Your task to perform on an android device: delete location history Image 0: 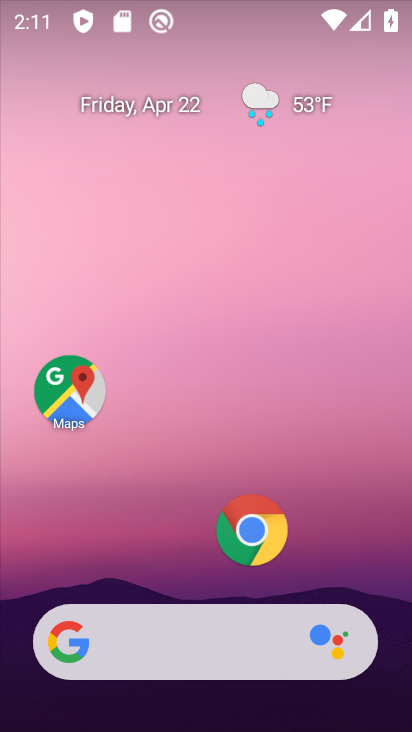
Step 0: drag from (212, 644) to (167, 154)
Your task to perform on an android device: delete location history Image 1: 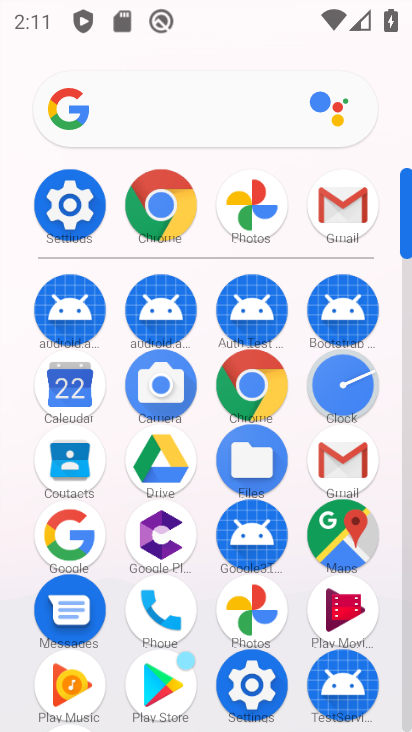
Step 1: click (334, 522)
Your task to perform on an android device: delete location history Image 2: 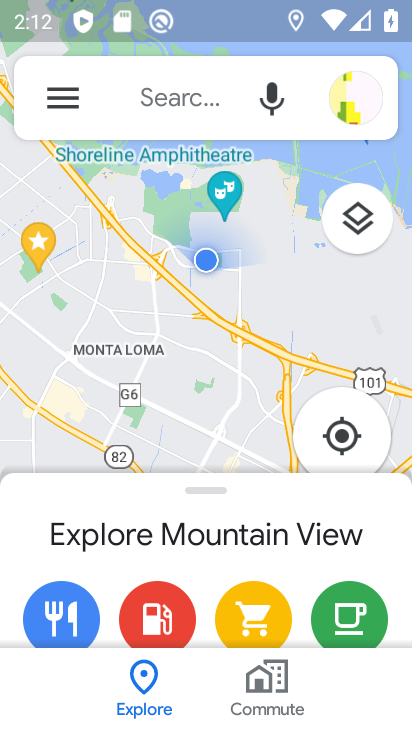
Step 2: click (75, 95)
Your task to perform on an android device: delete location history Image 3: 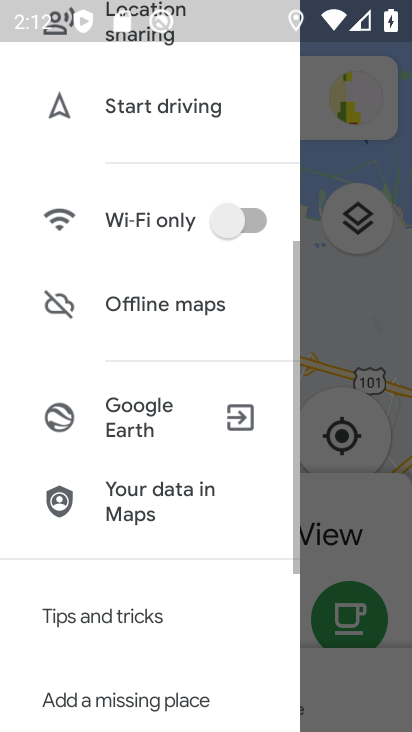
Step 3: drag from (153, 141) to (153, 647)
Your task to perform on an android device: delete location history Image 4: 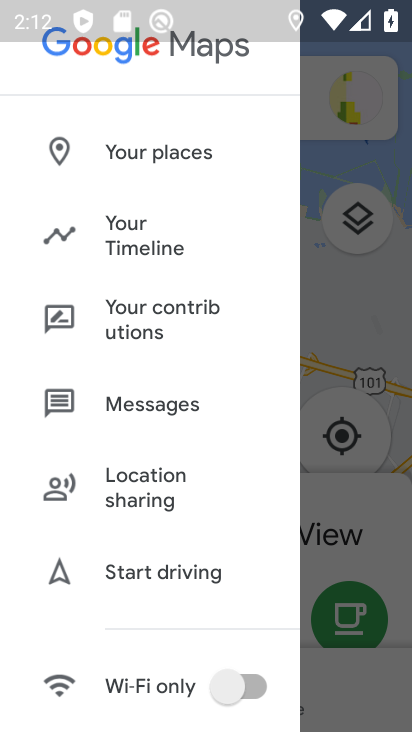
Step 4: click (161, 242)
Your task to perform on an android device: delete location history Image 5: 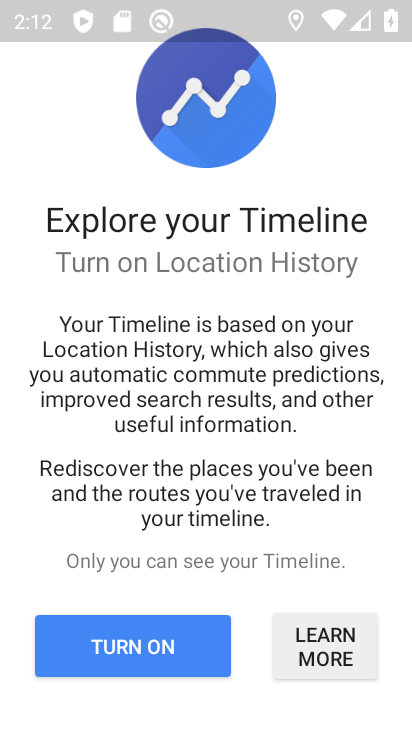
Step 5: click (195, 639)
Your task to perform on an android device: delete location history Image 6: 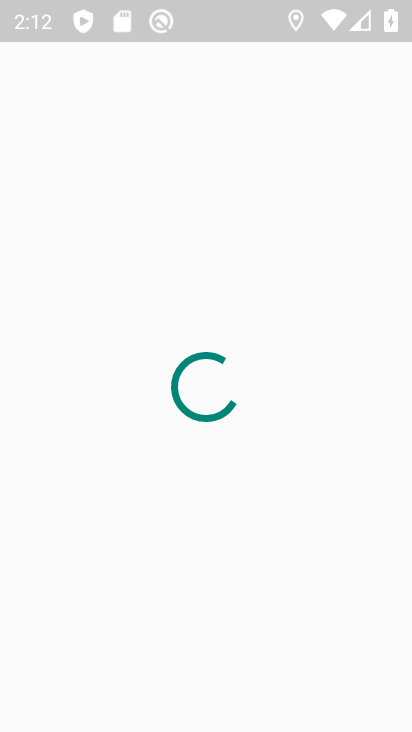
Step 6: click (374, 82)
Your task to perform on an android device: delete location history Image 7: 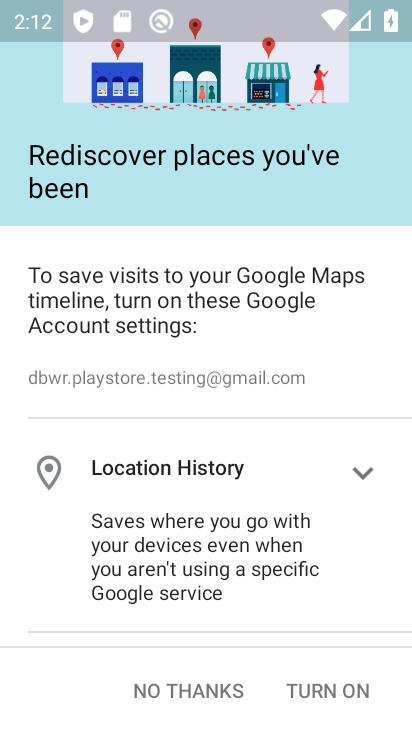
Step 7: click (342, 696)
Your task to perform on an android device: delete location history Image 8: 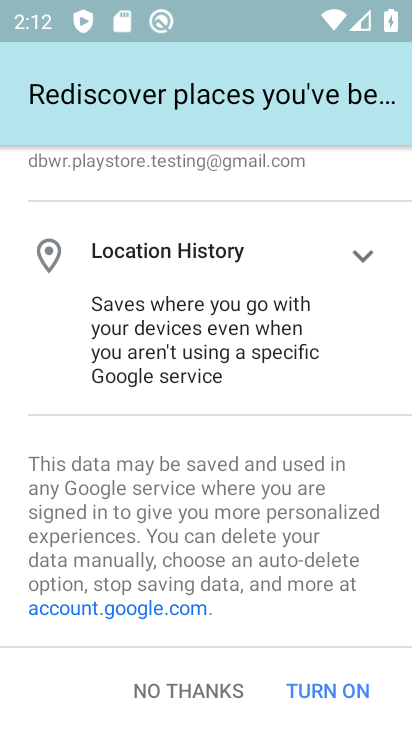
Step 8: click (342, 696)
Your task to perform on an android device: delete location history Image 9: 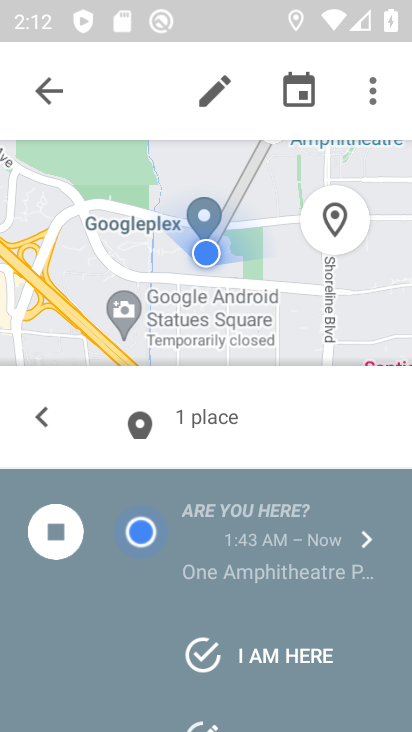
Step 9: click (377, 98)
Your task to perform on an android device: delete location history Image 10: 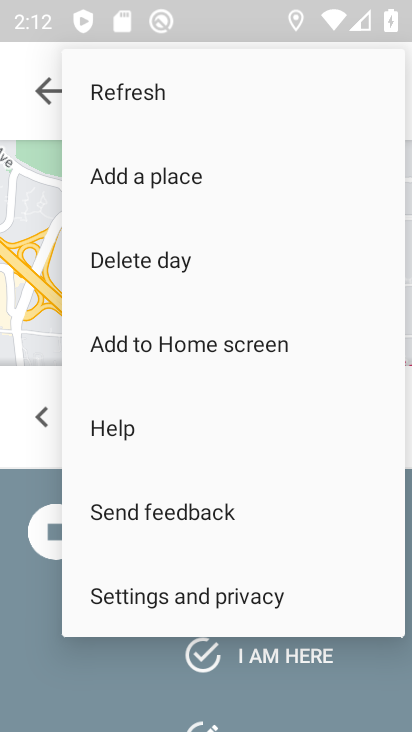
Step 10: drag from (277, 527) to (220, 68)
Your task to perform on an android device: delete location history Image 11: 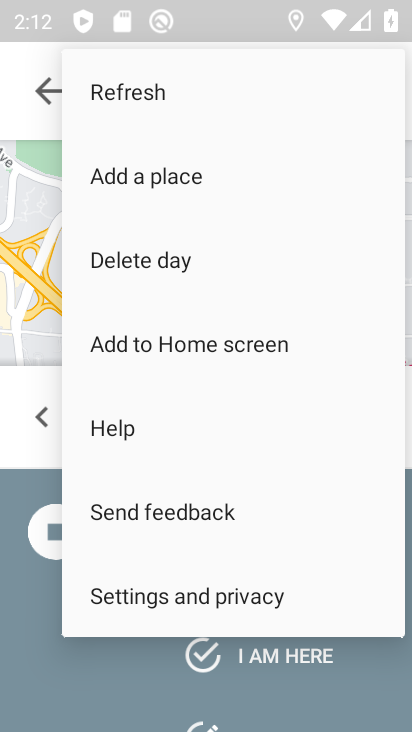
Step 11: click (238, 589)
Your task to perform on an android device: delete location history Image 12: 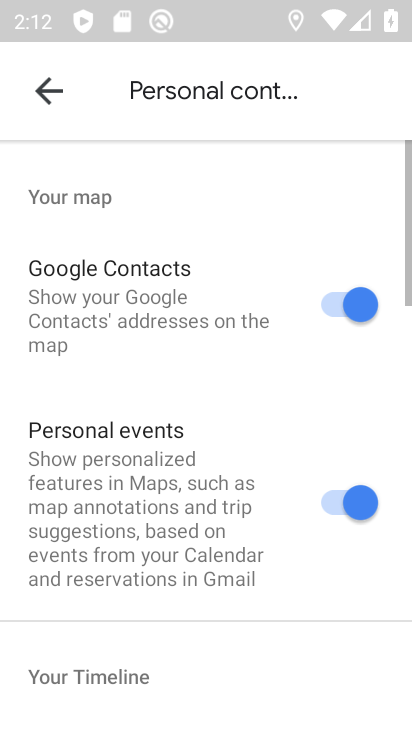
Step 12: drag from (213, 574) to (190, 175)
Your task to perform on an android device: delete location history Image 13: 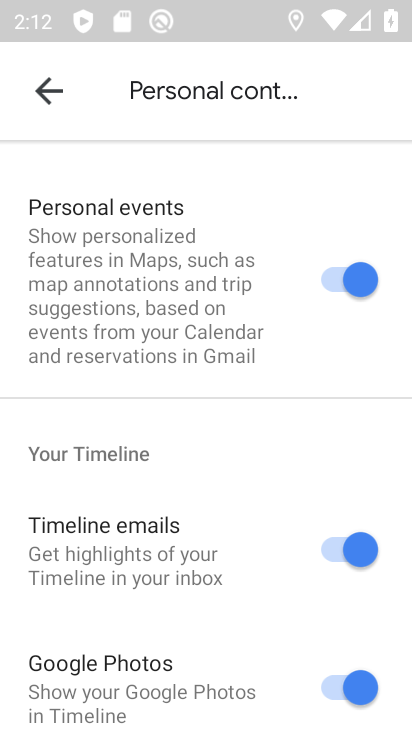
Step 13: drag from (201, 549) to (176, 160)
Your task to perform on an android device: delete location history Image 14: 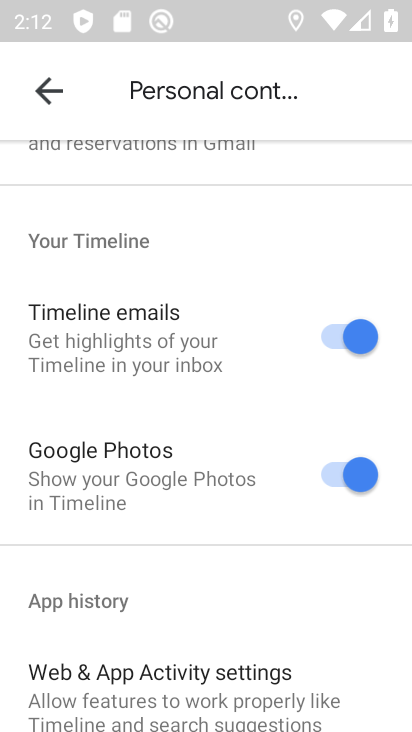
Step 14: drag from (209, 589) to (159, 201)
Your task to perform on an android device: delete location history Image 15: 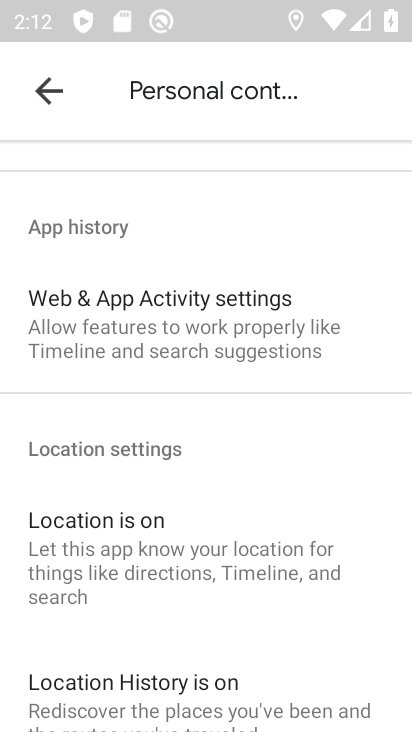
Step 15: drag from (254, 627) to (227, 219)
Your task to perform on an android device: delete location history Image 16: 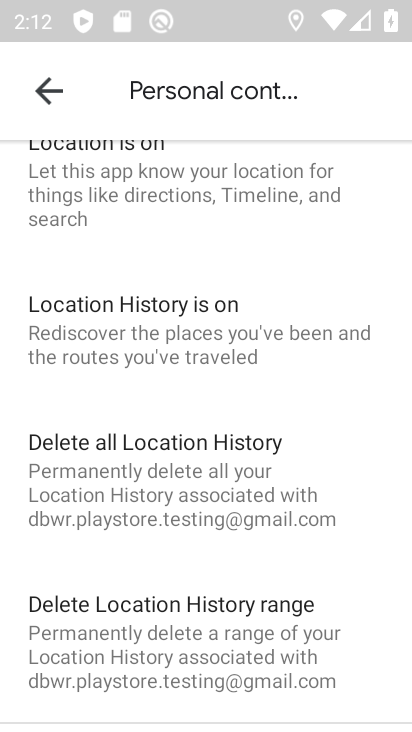
Step 16: click (210, 491)
Your task to perform on an android device: delete location history Image 17: 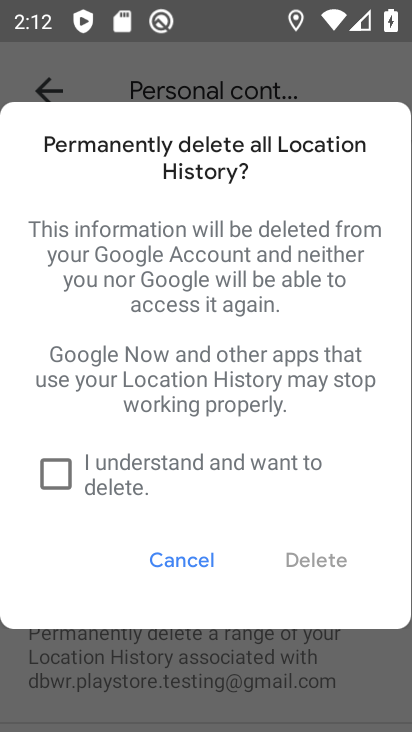
Step 17: click (178, 472)
Your task to perform on an android device: delete location history Image 18: 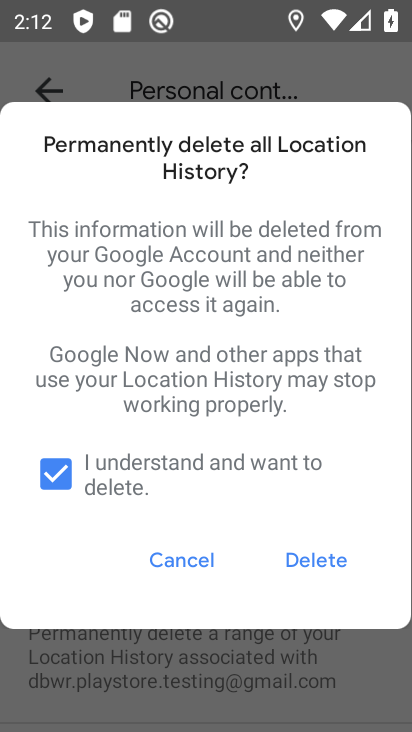
Step 18: click (298, 553)
Your task to perform on an android device: delete location history Image 19: 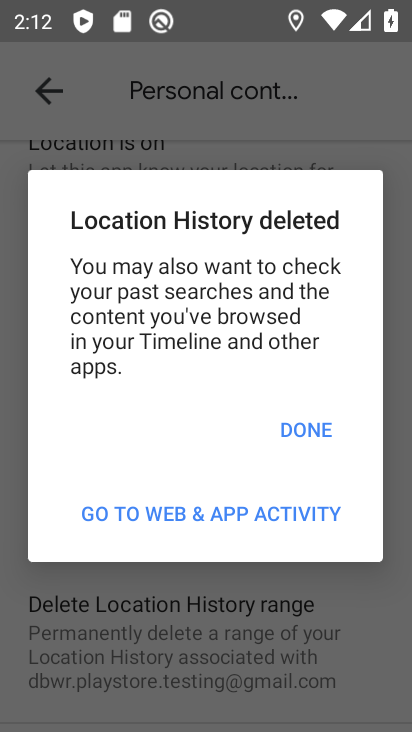
Step 19: task complete